Your task to perform on an android device: see creations saved in the google photos Image 0: 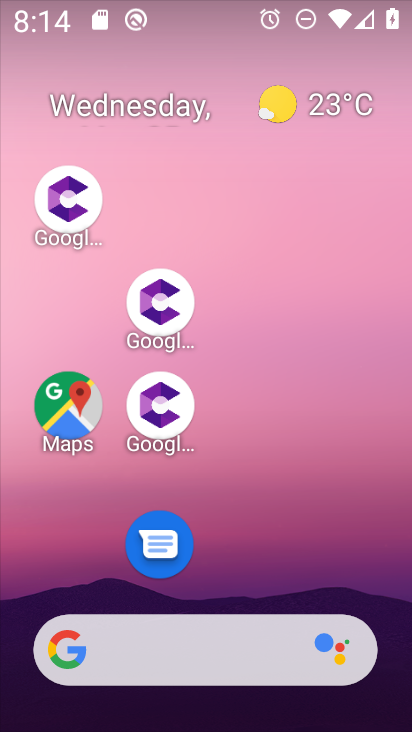
Step 0: drag from (304, 493) to (231, 10)
Your task to perform on an android device: see creations saved in the google photos Image 1: 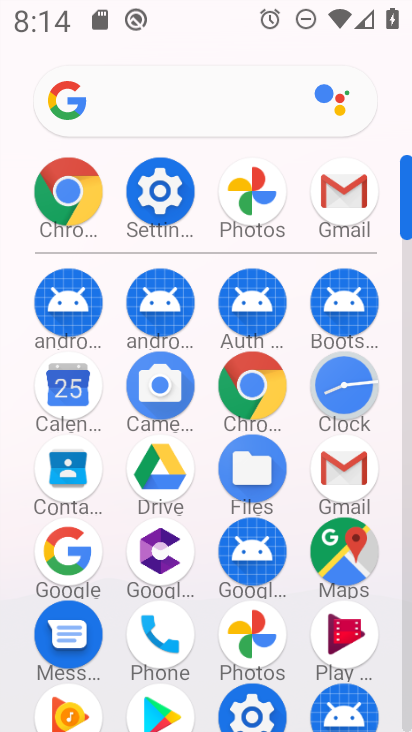
Step 1: click (263, 627)
Your task to perform on an android device: see creations saved in the google photos Image 2: 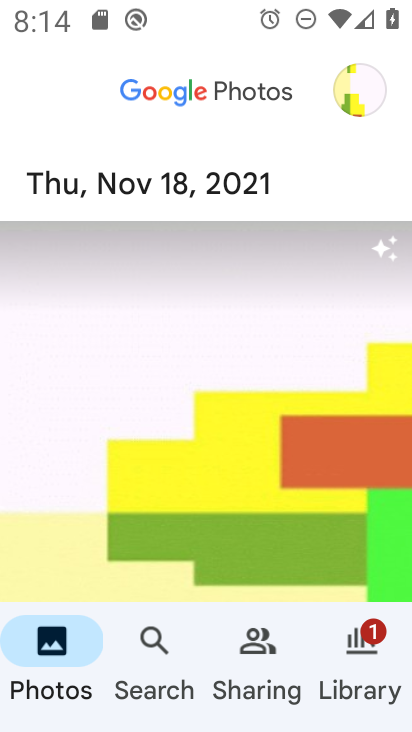
Step 2: click (150, 634)
Your task to perform on an android device: see creations saved in the google photos Image 3: 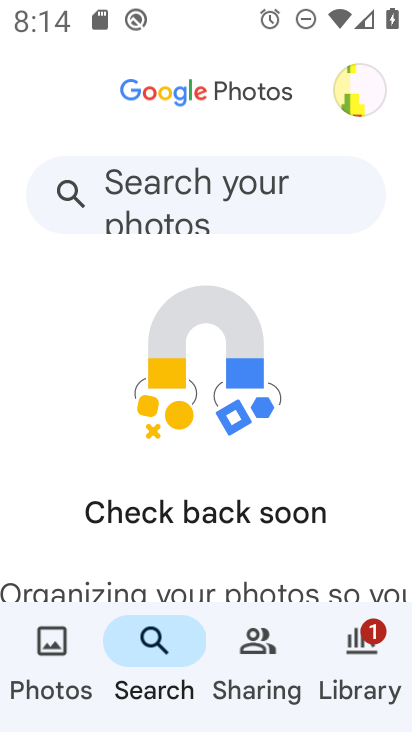
Step 3: click (164, 195)
Your task to perform on an android device: see creations saved in the google photos Image 4: 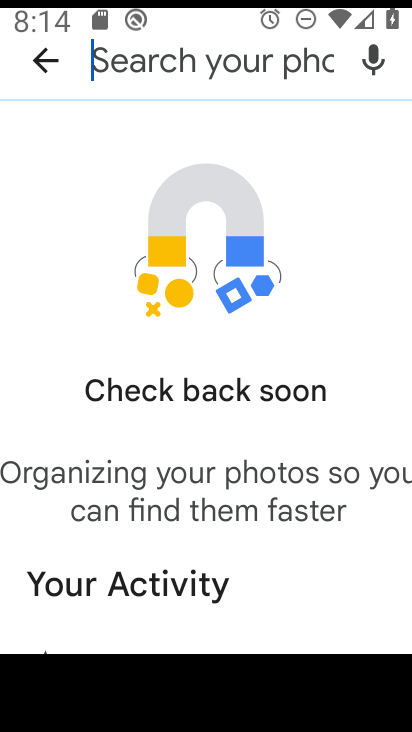
Step 4: type "creation"
Your task to perform on an android device: see creations saved in the google photos Image 5: 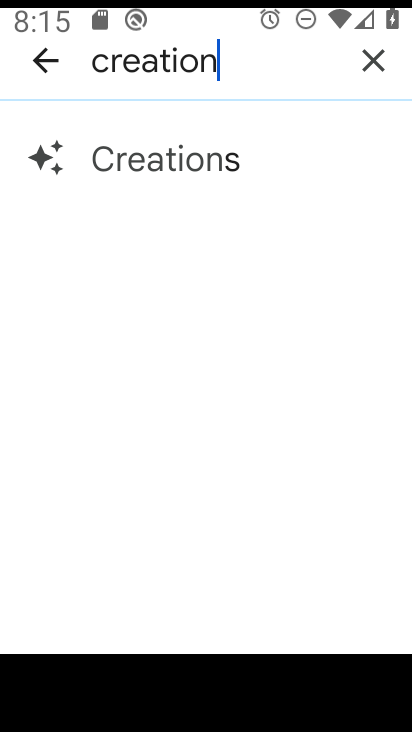
Step 5: click (193, 151)
Your task to perform on an android device: see creations saved in the google photos Image 6: 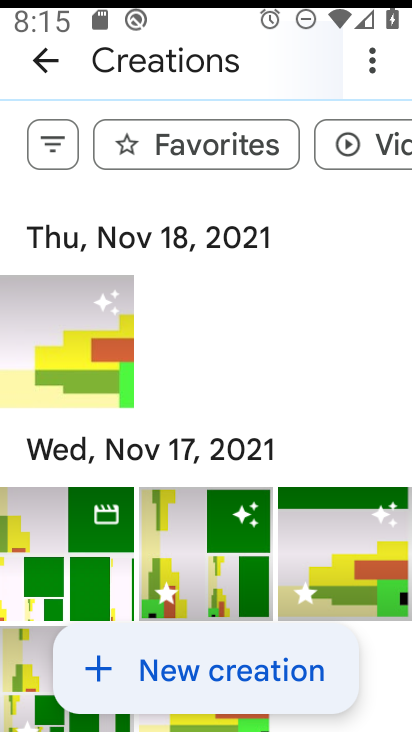
Step 6: task complete